Your task to perform on an android device: Open the Play Movies app and select the watchlist tab. Image 0: 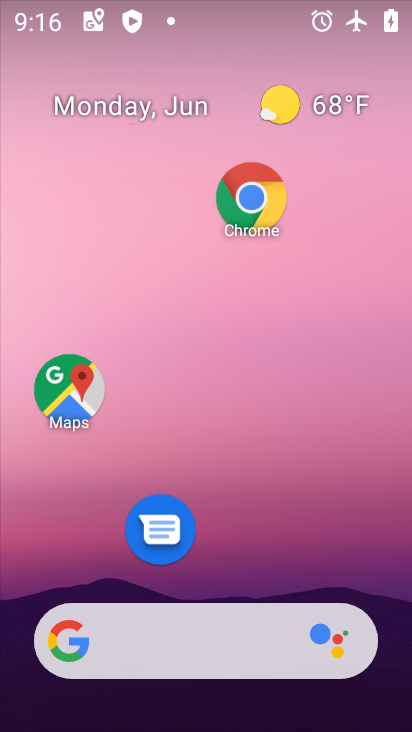
Step 0: drag from (226, 549) to (208, 149)
Your task to perform on an android device: Open the Play Movies app and select the watchlist tab. Image 1: 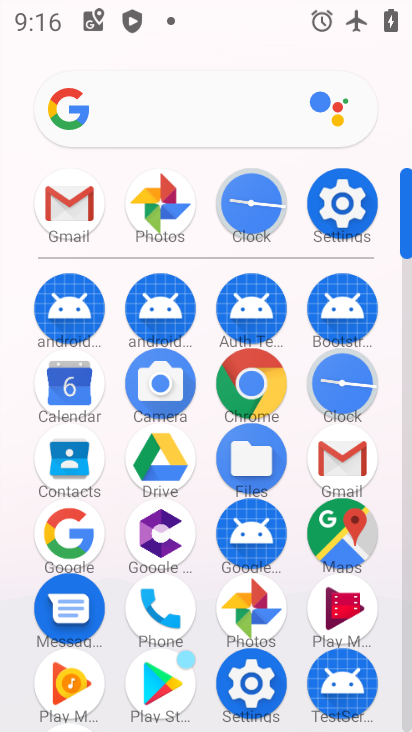
Step 1: click (327, 601)
Your task to perform on an android device: Open the Play Movies app and select the watchlist tab. Image 2: 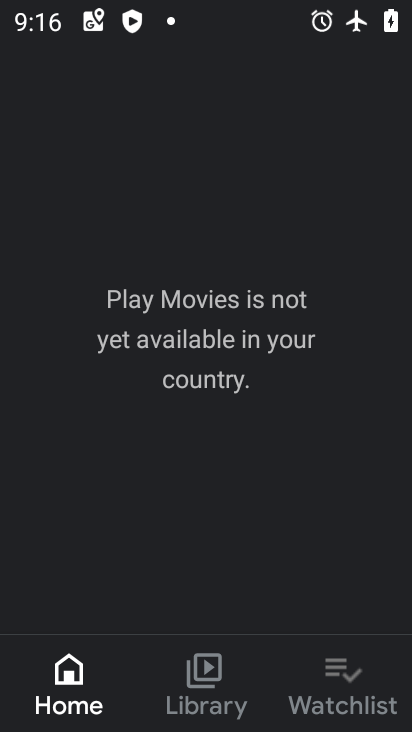
Step 2: click (326, 654)
Your task to perform on an android device: Open the Play Movies app and select the watchlist tab. Image 3: 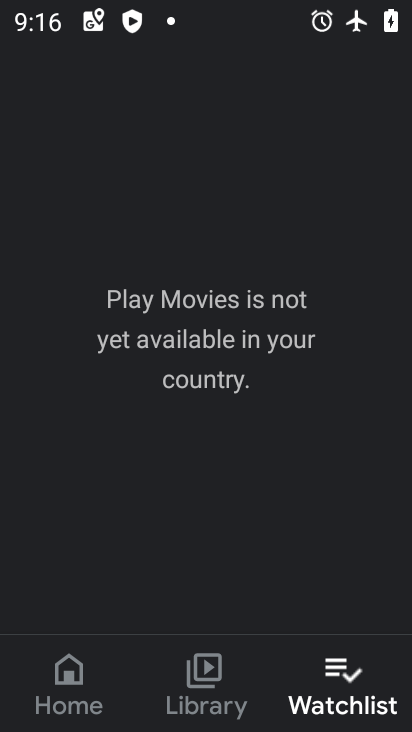
Step 3: task complete